Your task to perform on an android device: Open Google Chrome and click the shortcut for Amazon.com Image 0: 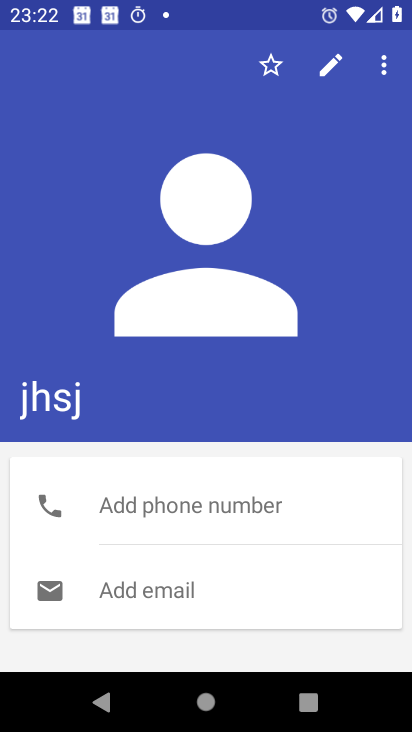
Step 0: press home button
Your task to perform on an android device: Open Google Chrome and click the shortcut for Amazon.com Image 1: 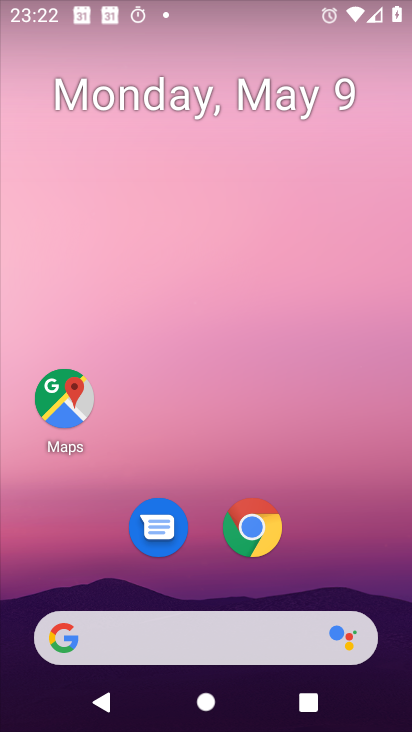
Step 1: click (251, 524)
Your task to perform on an android device: Open Google Chrome and click the shortcut for Amazon.com Image 2: 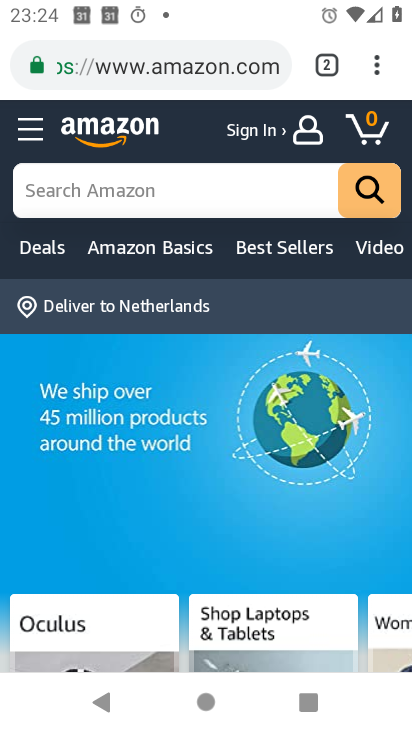
Step 2: task complete